Your task to perform on an android device: change the clock display to digital Image 0: 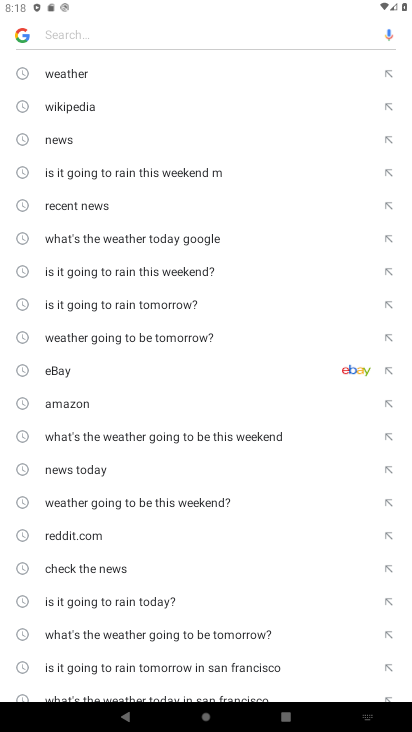
Step 0: press home button
Your task to perform on an android device: change the clock display to digital Image 1: 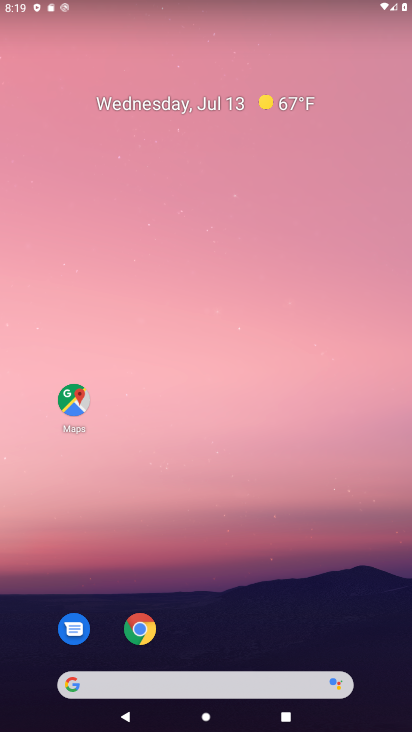
Step 1: drag from (228, 653) to (243, 144)
Your task to perform on an android device: change the clock display to digital Image 2: 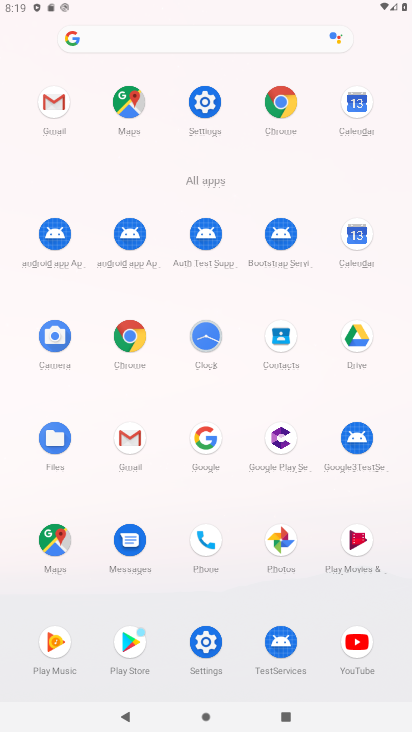
Step 2: click (211, 344)
Your task to perform on an android device: change the clock display to digital Image 3: 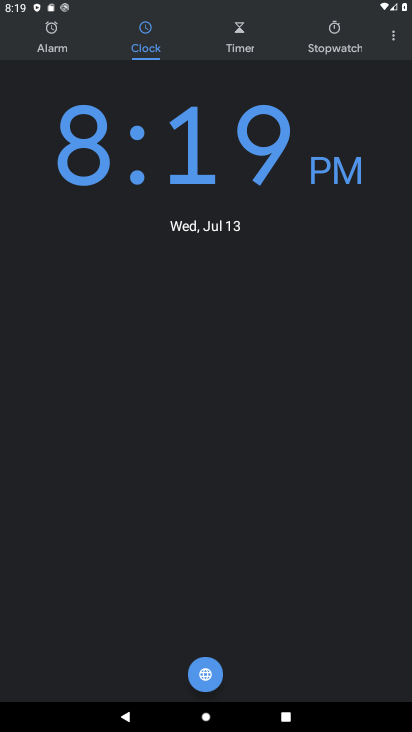
Step 3: click (385, 24)
Your task to perform on an android device: change the clock display to digital Image 4: 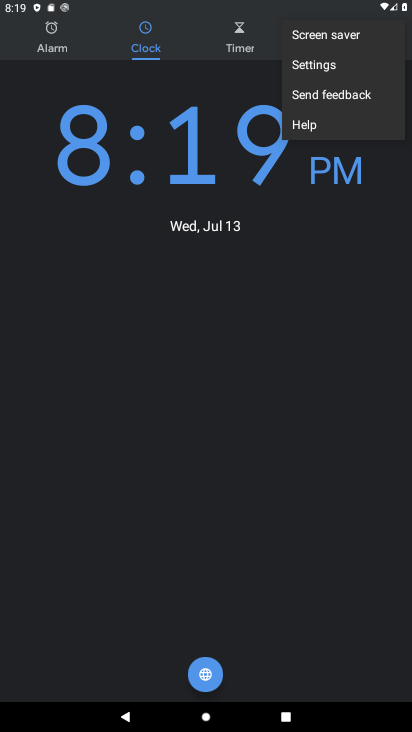
Step 4: click (316, 73)
Your task to perform on an android device: change the clock display to digital Image 5: 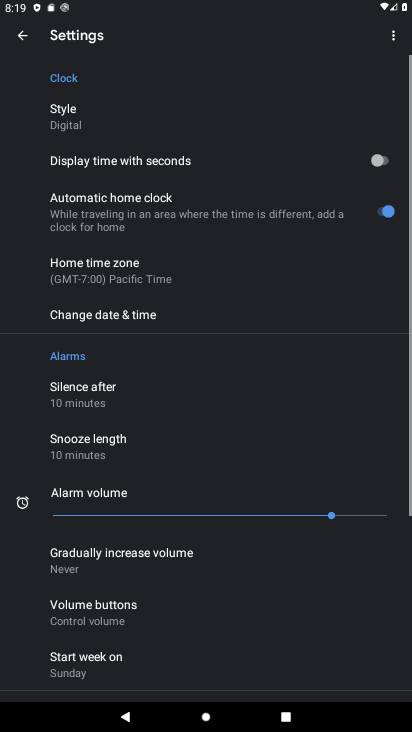
Step 5: click (84, 129)
Your task to perform on an android device: change the clock display to digital Image 6: 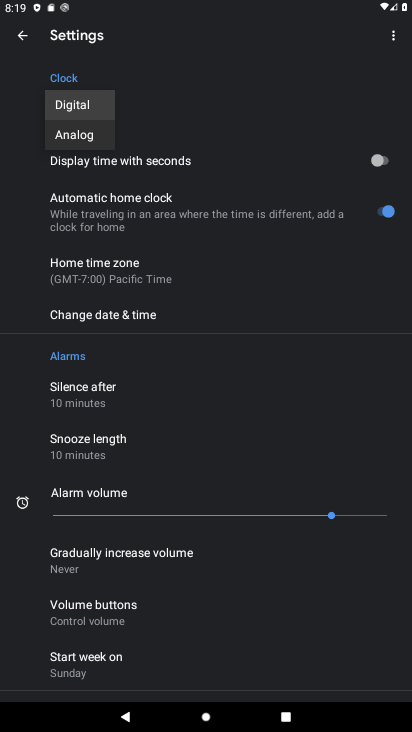
Step 6: task complete